Your task to perform on an android device: Open maps Image 0: 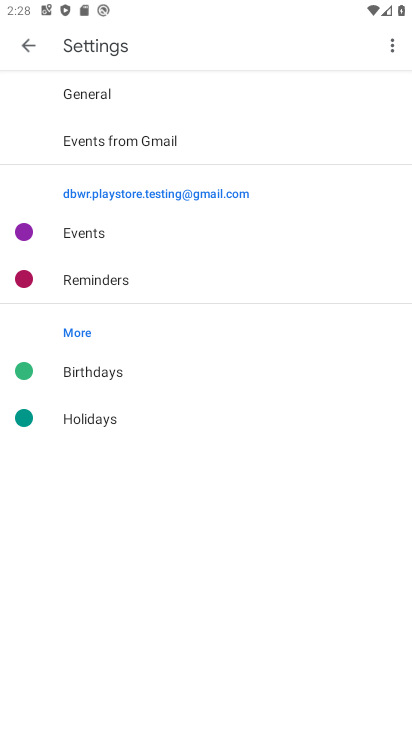
Step 0: press back button
Your task to perform on an android device: Open maps Image 1: 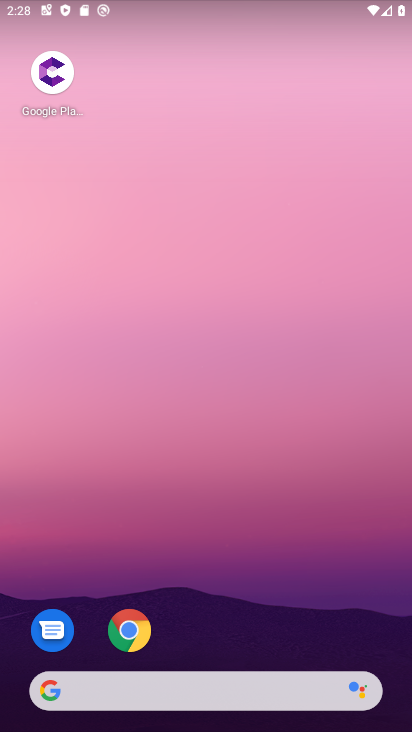
Step 1: drag from (275, 598) to (302, 21)
Your task to perform on an android device: Open maps Image 2: 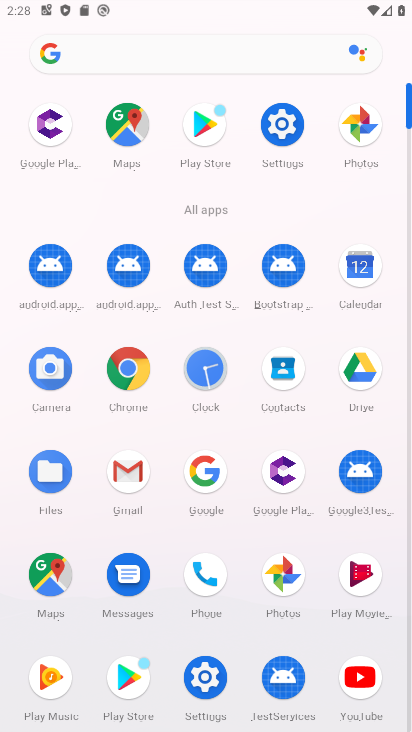
Step 2: click (127, 128)
Your task to perform on an android device: Open maps Image 3: 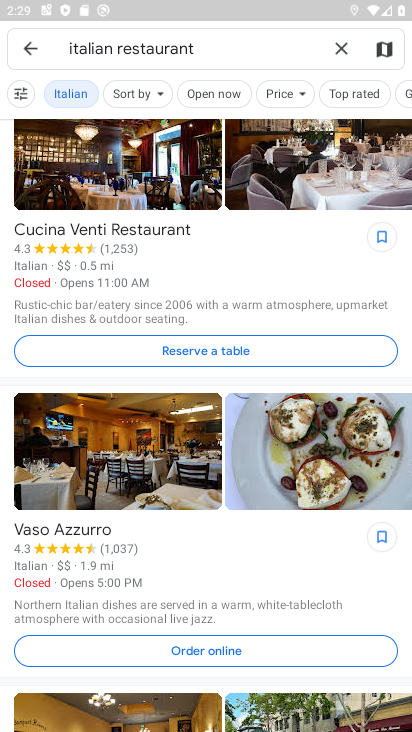
Step 3: task complete